Your task to perform on an android device: change the clock display to analog Image 0: 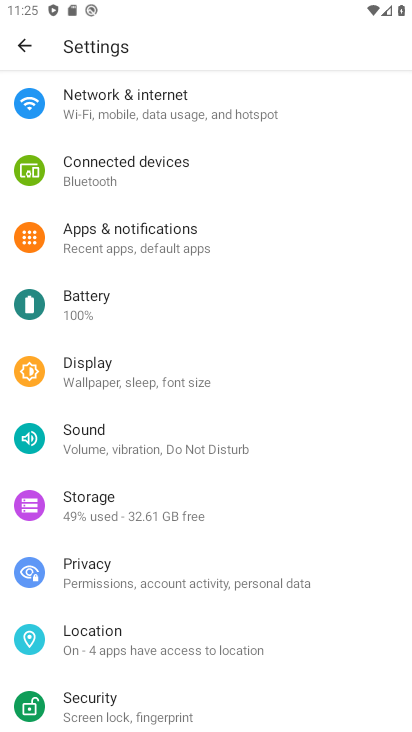
Step 0: press home button
Your task to perform on an android device: change the clock display to analog Image 1: 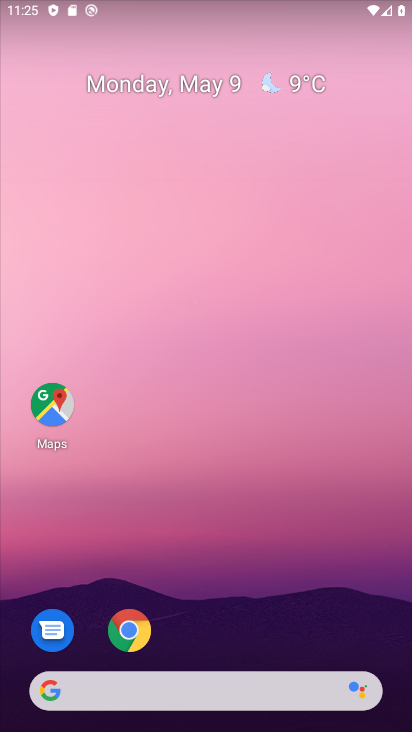
Step 1: drag from (242, 605) to (94, 224)
Your task to perform on an android device: change the clock display to analog Image 2: 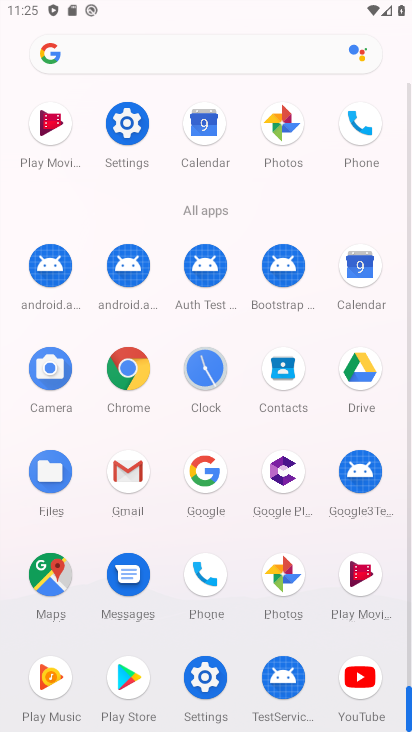
Step 2: click (200, 376)
Your task to perform on an android device: change the clock display to analog Image 3: 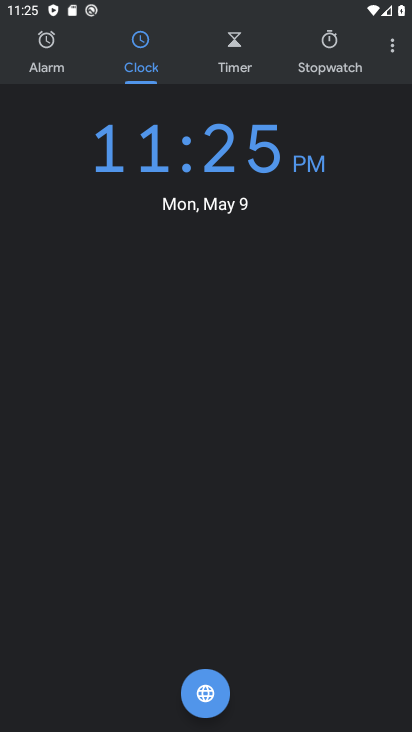
Step 3: click (394, 51)
Your task to perform on an android device: change the clock display to analog Image 4: 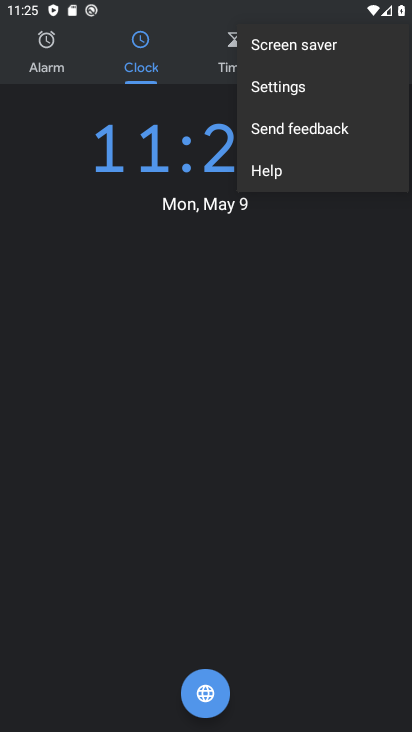
Step 4: click (272, 87)
Your task to perform on an android device: change the clock display to analog Image 5: 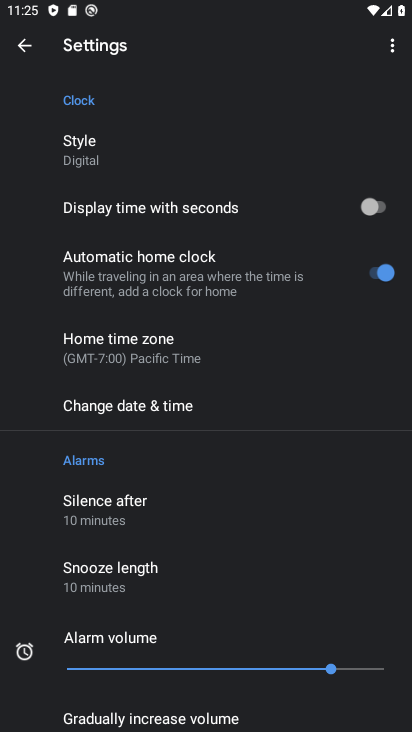
Step 5: click (81, 144)
Your task to perform on an android device: change the clock display to analog Image 6: 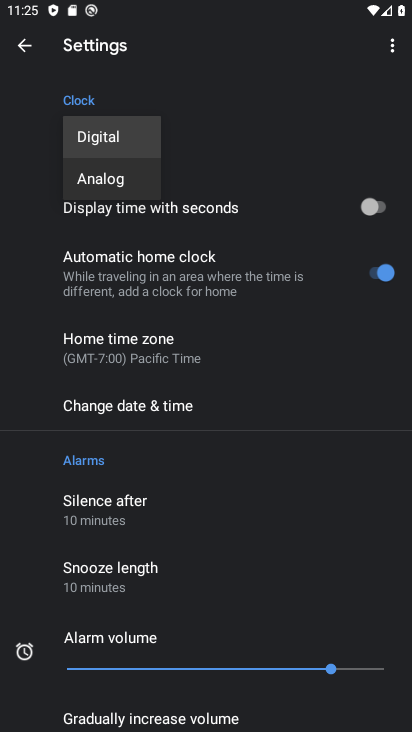
Step 6: click (105, 182)
Your task to perform on an android device: change the clock display to analog Image 7: 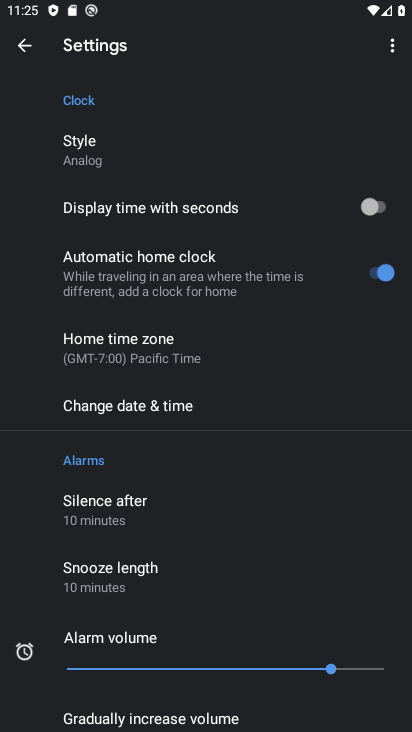
Step 7: task complete